Your task to perform on an android device: set an alarm Image 0: 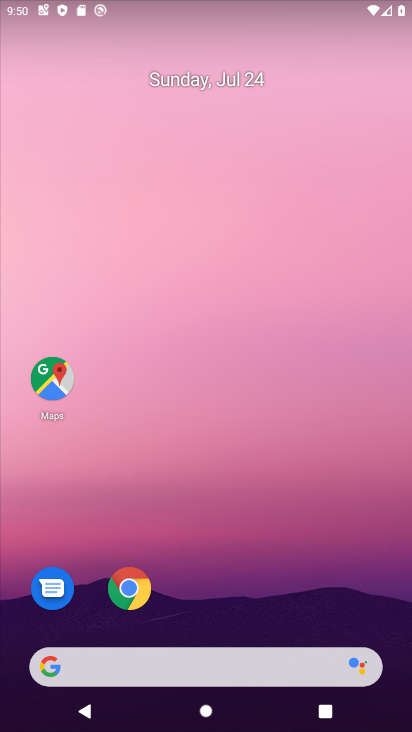
Step 0: drag from (169, 290) to (121, 60)
Your task to perform on an android device: set an alarm Image 1: 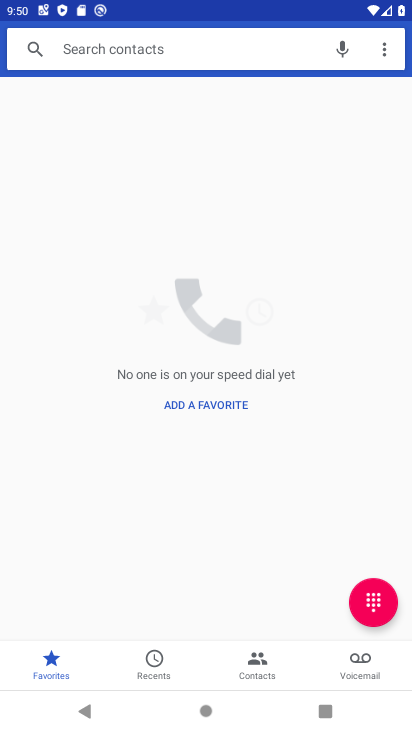
Step 1: press back button
Your task to perform on an android device: set an alarm Image 2: 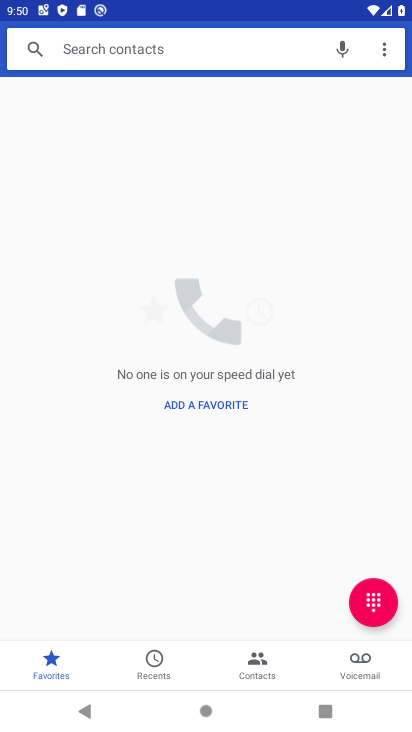
Step 2: press back button
Your task to perform on an android device: set an alarm Image 3: 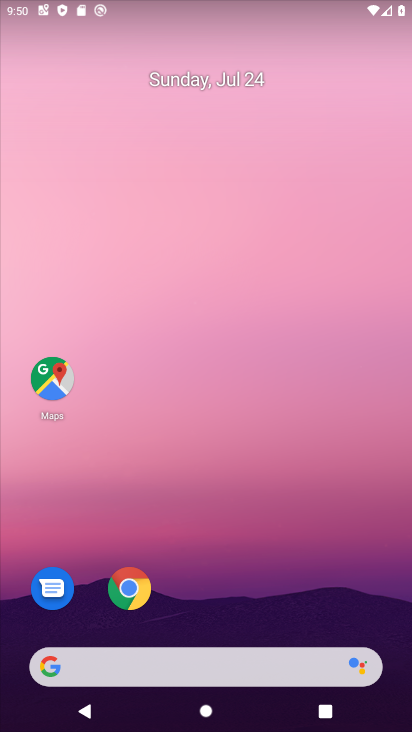
Step 3: drag from (242, 650) to (186, 98)
Your task to perform on an android device: set an alarm Image 4: 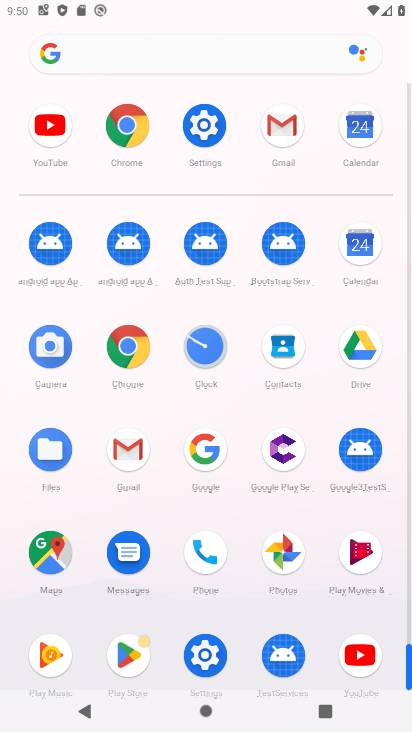
Step 4: click (199, 329)
Your task to perform on an android device: set an alarm Image 5: 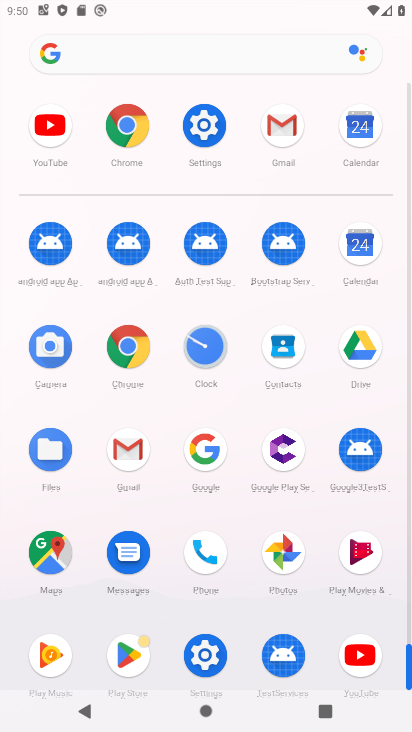
Step 5: click (204, 325)
Your task to perform on an android device: set an alarm Image 6: 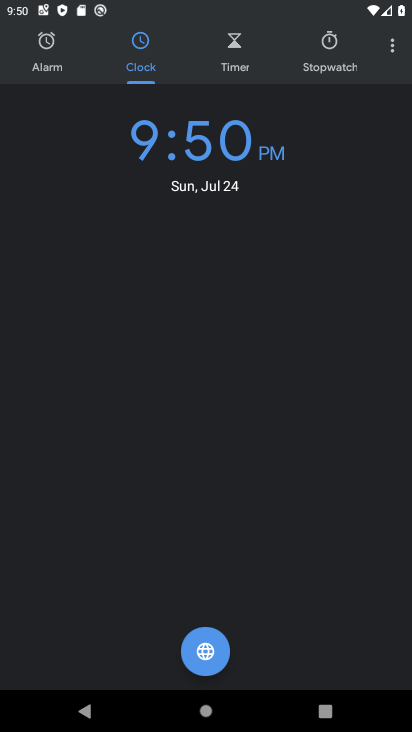
Step 6: click (76, 72)
Your task to perform on an android device: set an alarm Image 7: 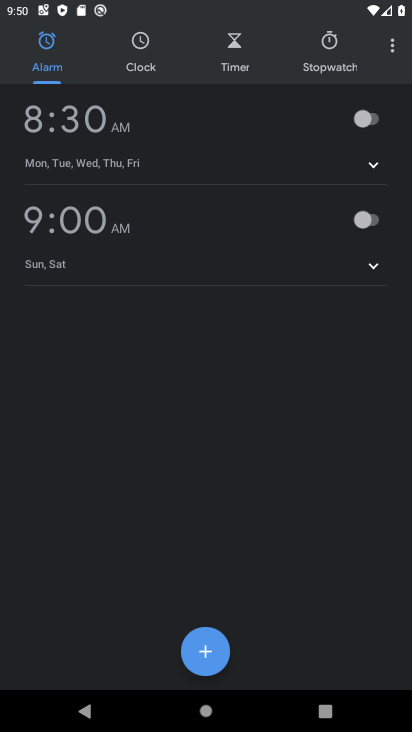
Step 7: click (72, 71)
Your task to perform on an android device: set an alarm Image 8: 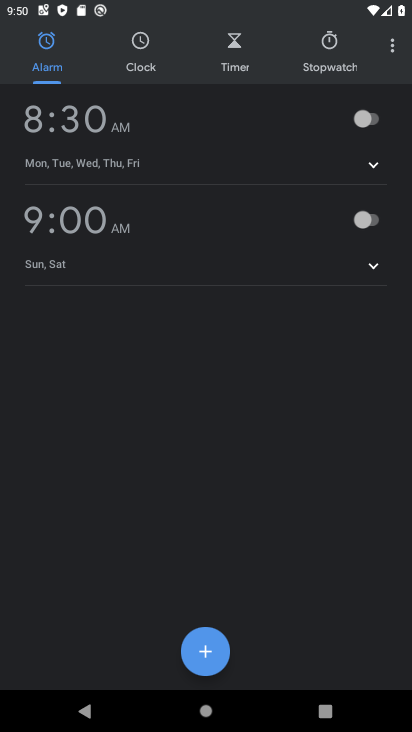
Step 8: click (71, 75)
Your task to perform on an android device: set an alarm Image 9: 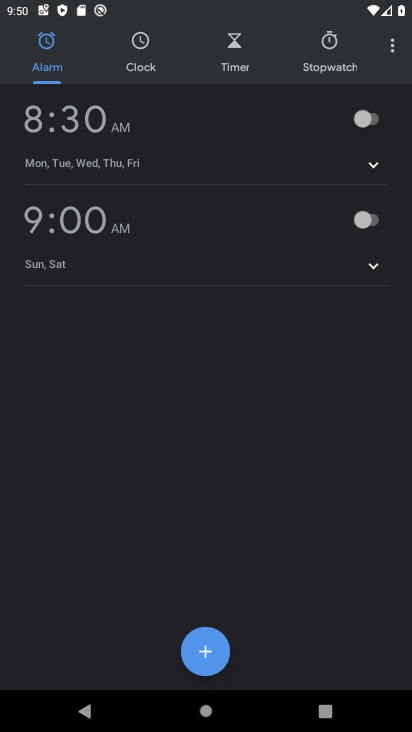
Step 9: click (371, 122)
Your task to perform on an android device: set an alarm Image 10: 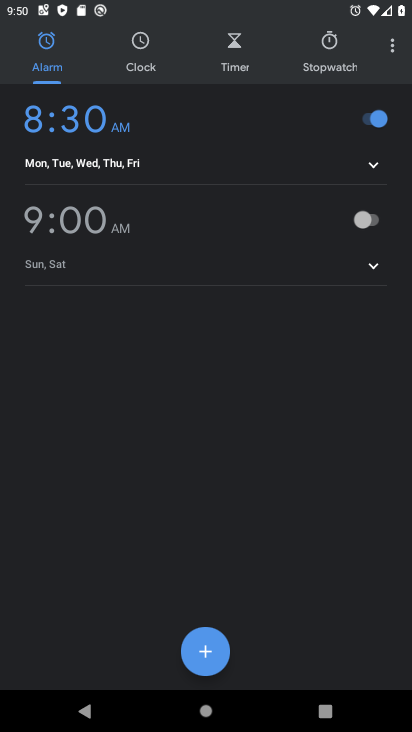
Step 10: task complete